Your task to perform on an android device: turn off priority inbox in the gmail app Image 0: 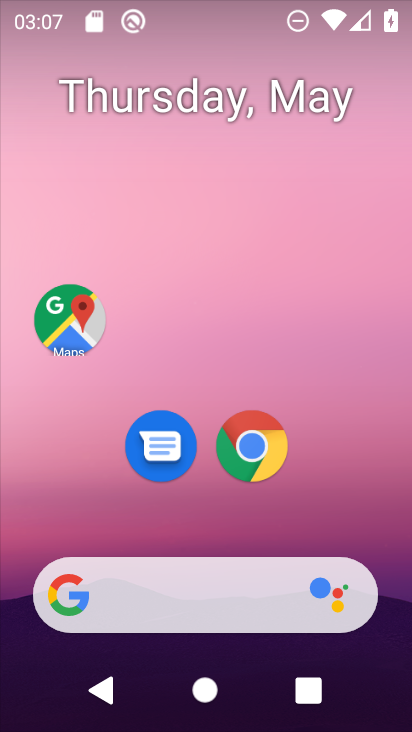
Step 0: drag from (365, 536) to (375, 15)
Your task to perform on an android device: turn off priority inbox in the gmail app Image 1: 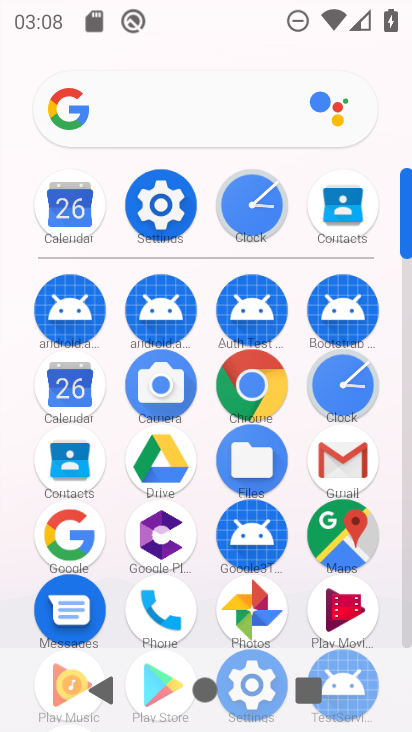
Step 1: click (341, 461)
Your task to perform on an android device: turn off priority inbox in the gmail app Image 2: 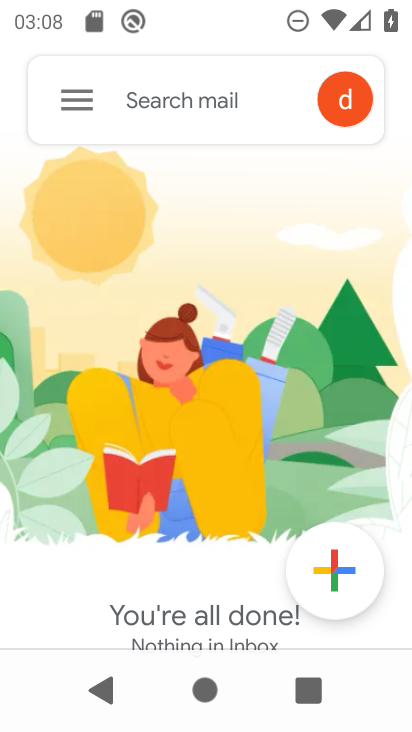
Step 2: click (68, 106)
Your task to perform on an android device: turn off priority inbox in the gmail app Image 3: 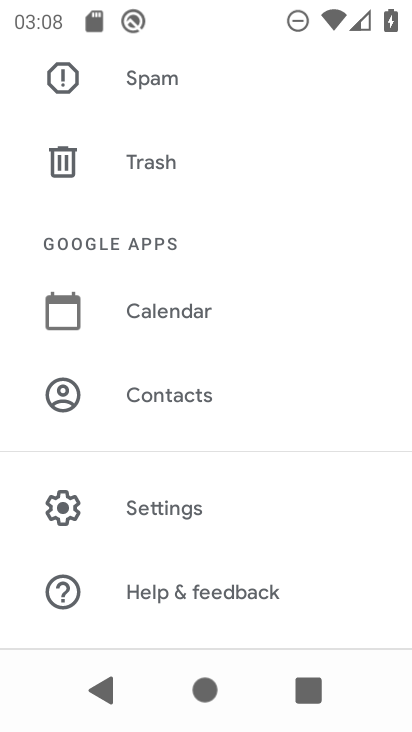
Step 3: click (156, 509)
Your task to perform on an android device: turn off priority inbox in the gmail app Image 4: 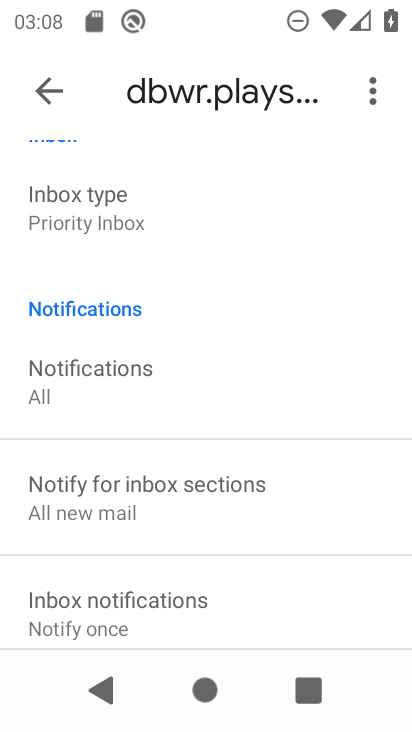
Step 4: click (81, 220)
Your task to perform on an android device: turn off priority inbox in the gmail app Image 5: 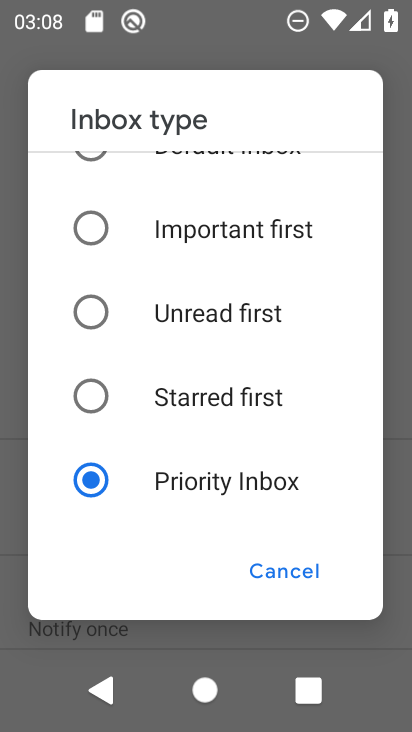
Step 5: click (88, 222)
Your task to perform on an android device: turn off priority inbox in the gmail app Image 6: 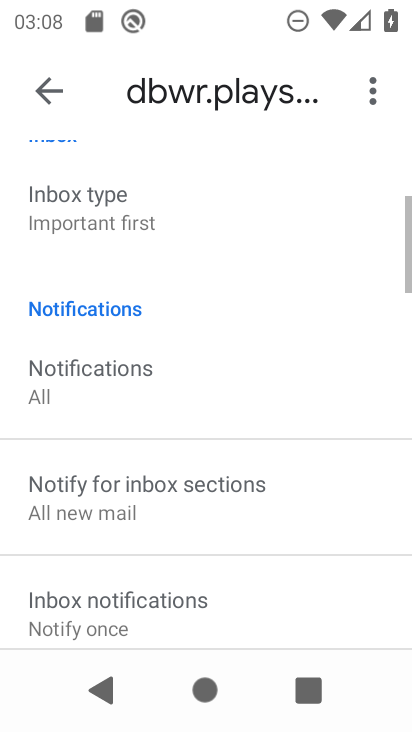
Step 6: task complete